Your task to perform on an android device: What's on my calendar tomorrow? Image 0: 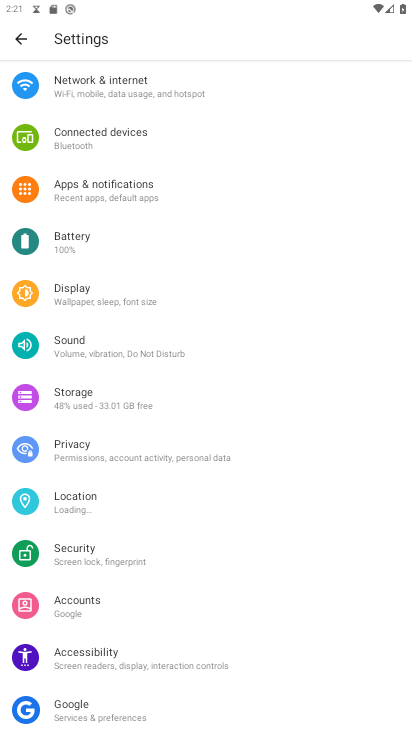
Step 0: press home button
Your task to perform on an android device: What's on my calendar tomorrow? Image 1: 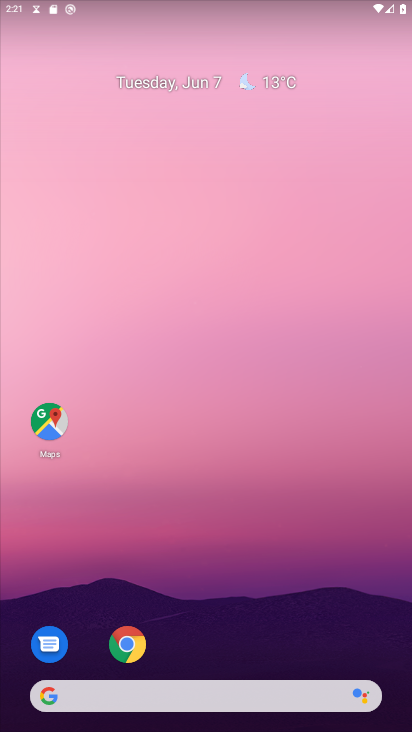
Step 1: drag from (217, 649) to (191, 8)
Your task to perform on an android device: What's on my calendar tomorrow? Image 2: 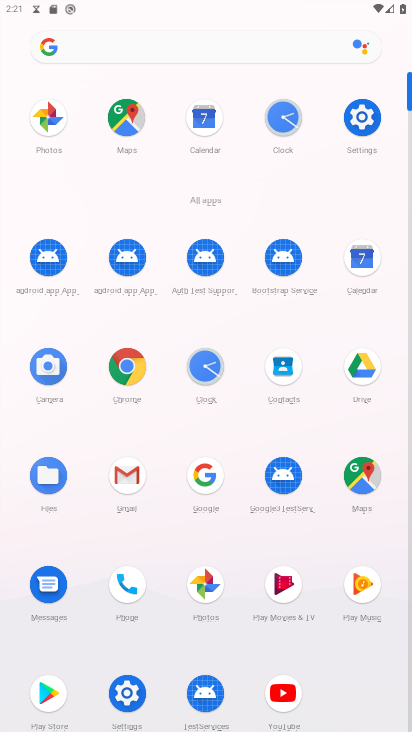
Step 2: click (361, 250)
Your task to perform on an android device: What's on my calendar tomorrow? Image 3: 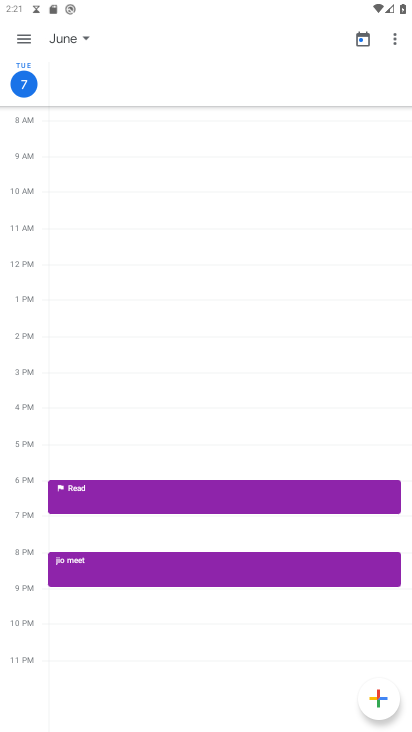
Step 3: click (33, 89)
Your task to perform on an android device: What's on my calendar tomorrow? Image 4: 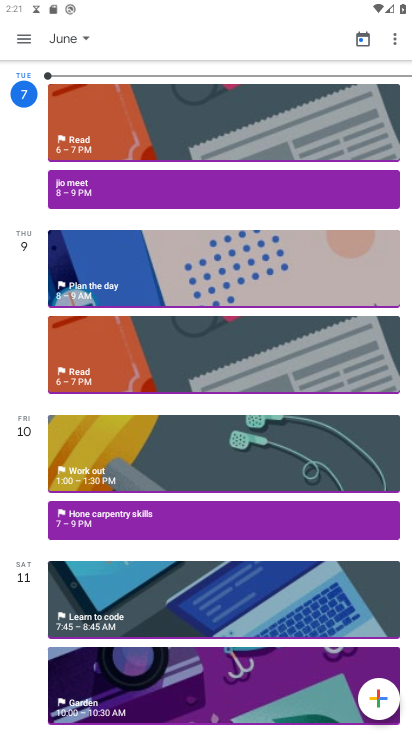
Step 4: click (84, 35)
Your task to perform on an android device: What's on my calendar tomorrow? Image 5: 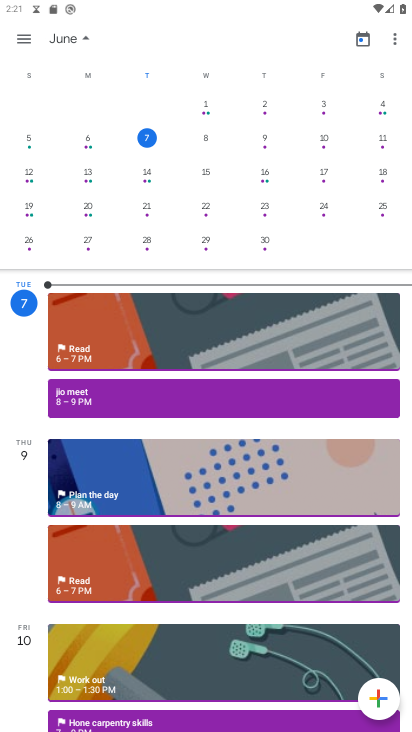
Step 5: click (203, 138)
Your task to perform on an android device: What's on my calendar tomorrow? Image 6: 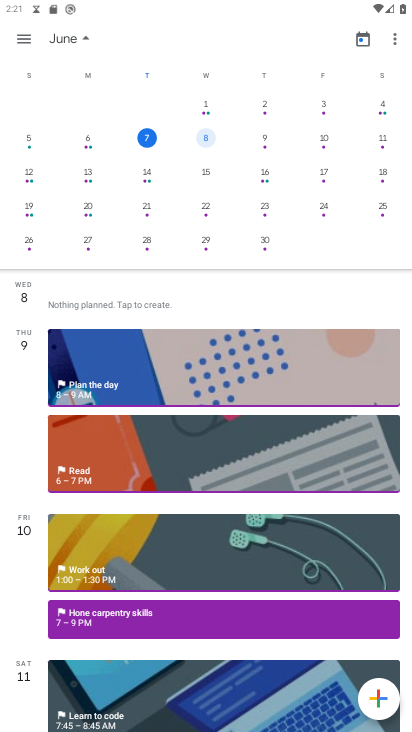
Step 6: click (27, 298)
Your task to perform on an android device: What's on my calendar tomorrow? Image 7: 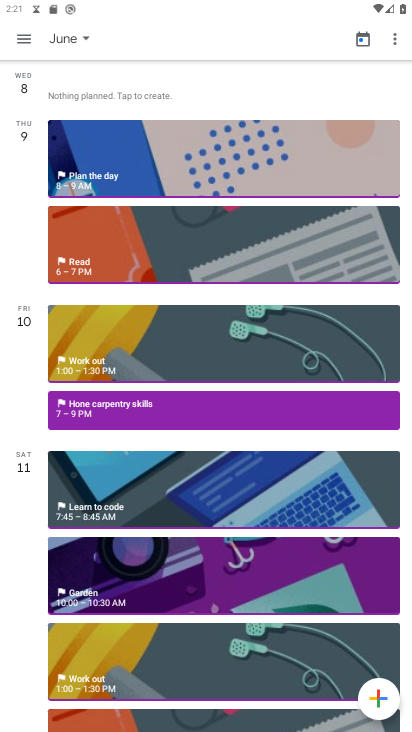
Step 7: click (27, 84)
Your task to perform on an android device: What's on my calendar tomorrow? Image 8: 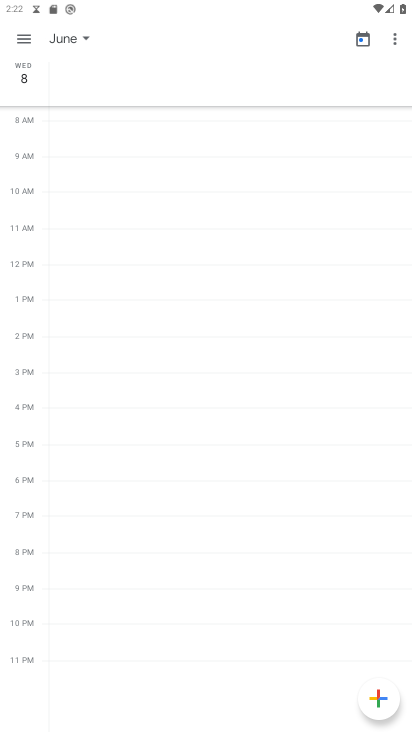
Step 8: task complete